Your task to perform on an android device: see tabs open on other devices in the chrome app Image 0: 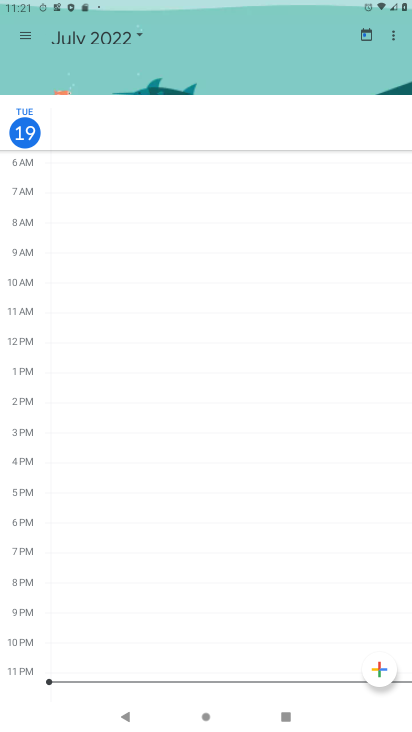
Step 0: press back button
Your task to perform on an android device: see tabs open on other devices in the chrome app Image 1: 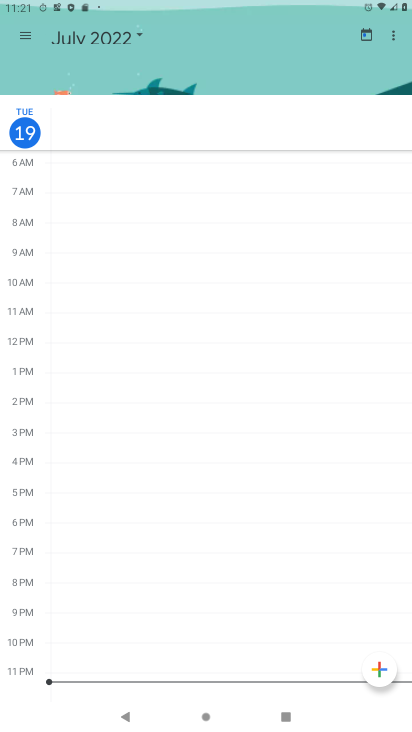
Step 1: press back button
Your task to perform on an android device: see tabs open on other devices in the chrome app Image 2: 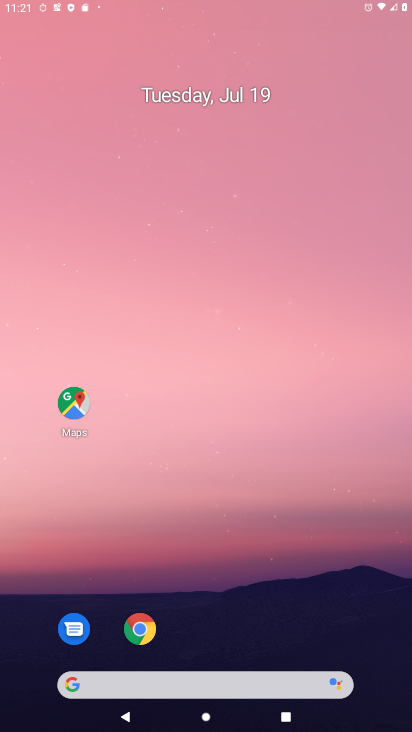
Step 2: press back button
Your task to perform on an android device: see tabs open on other devices in the chrome app Image 3: 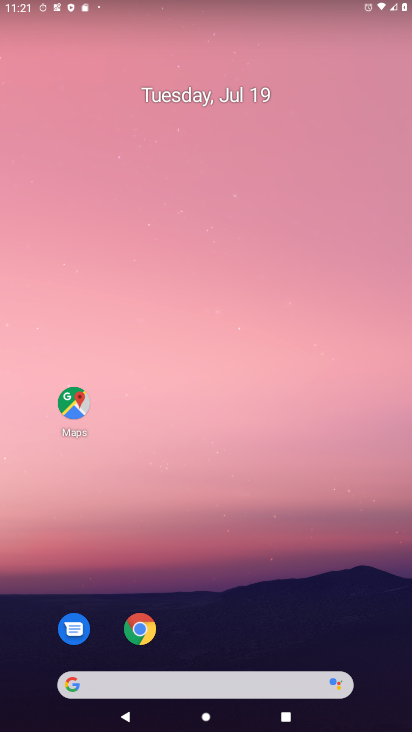
Step 3: press back button
Your task to perform on an android device: see tabs open on other devices in the chrome app Image 4: 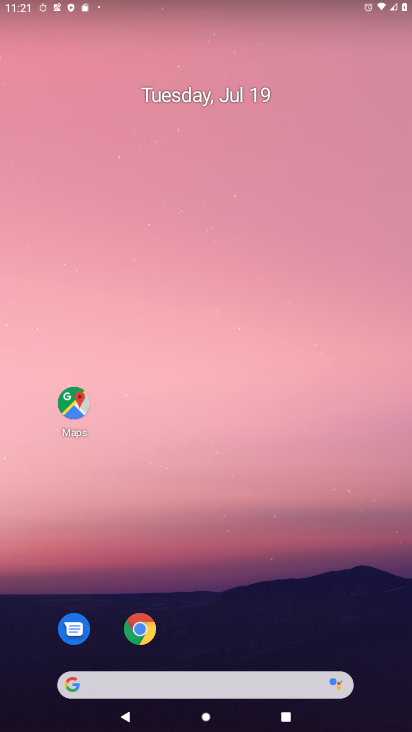
Step 4: press home button
Your task to perform on an android device: see tabs open on other devices in the chrome app Image 5: 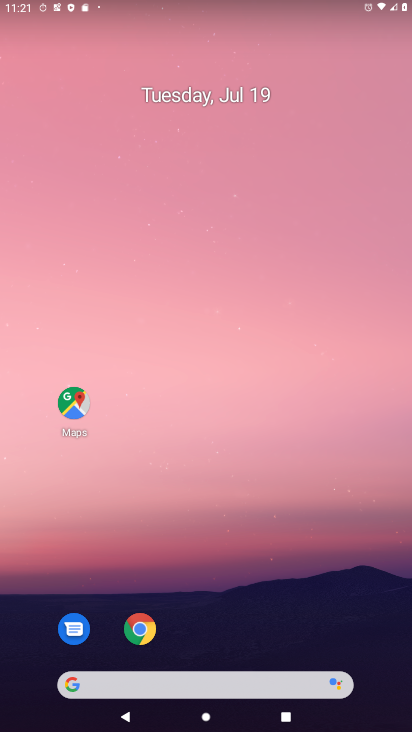
Step 5: drag from (239, 685) to (222, 331)
Your task to perform on an android device: see tabs open on other devices in the chrome app Image 6: 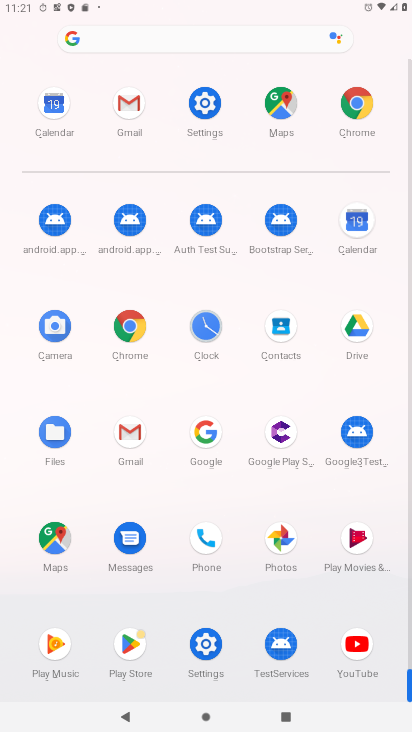
Step 6: click (356, 101)
Your task to perform on an android device: see tabs open on other devices in the chrome app Image 7: 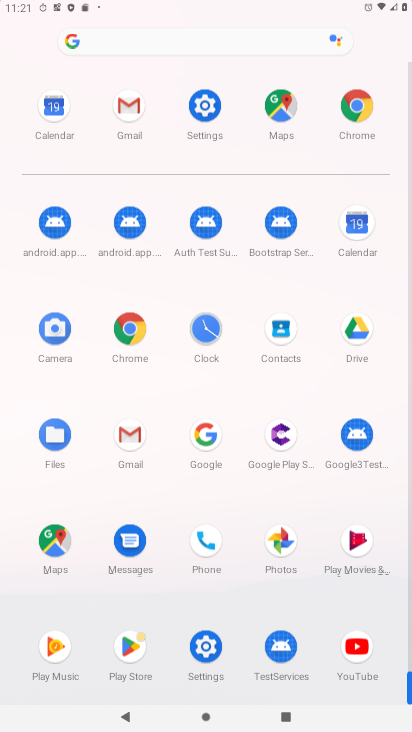
Step 7: click (356, 113)
Your task to perform on an android device: see tabs open on other devices in the chrome app Image 8: 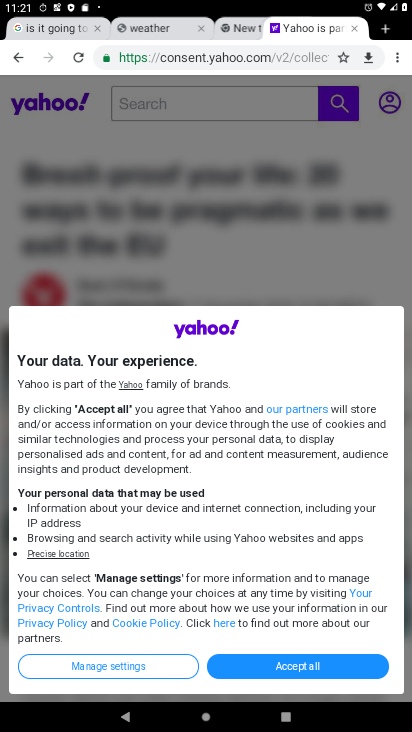
Step 8: drag from (401, 59) to (275, 144)
Your task to perform on an android device: see tabs open on other devices in the chrome app Image 9: 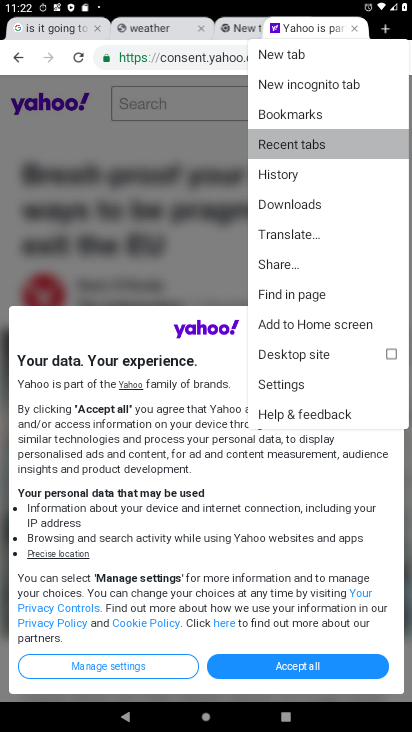
Step 9: click (276, 146)
Your task to perform on an android device: see tabs open on other devices in the chrome app Image 10: 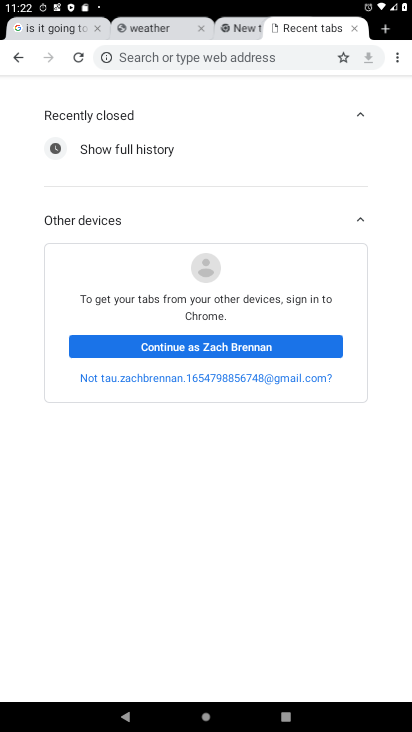
Step 10: task complete